Your task to perform on an android device: Open Google Chrome and open the bookmarks view Image 0: 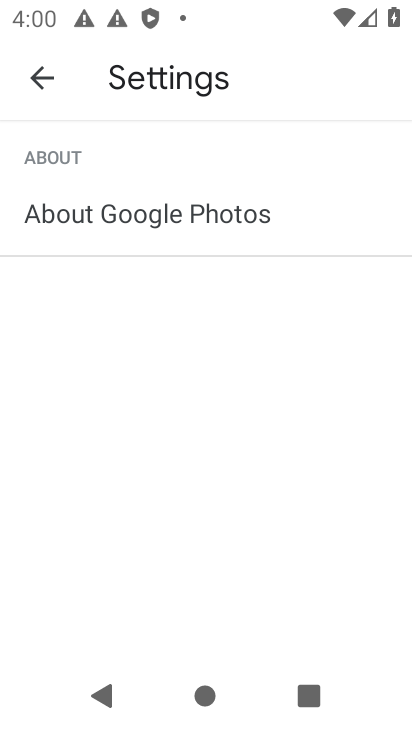
Step 0: press home button
Your task to perform on an android device: Open Google Chrome and open the bookmarks view Image 1: 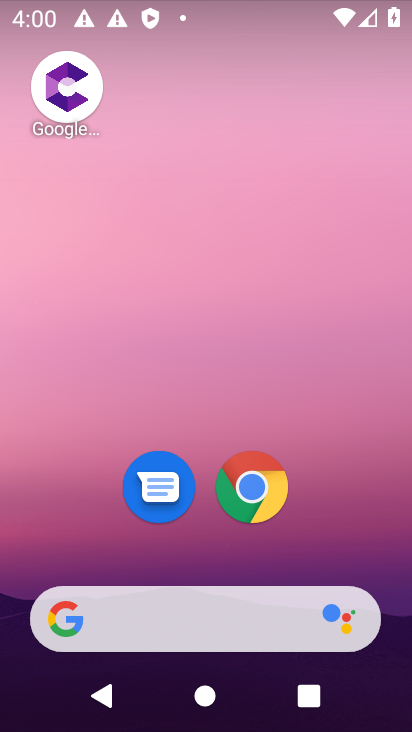
Step 1: click (263, 487)
Your task to perform on an android device: Open Google Chrome and open the bookmarks view Image 2: 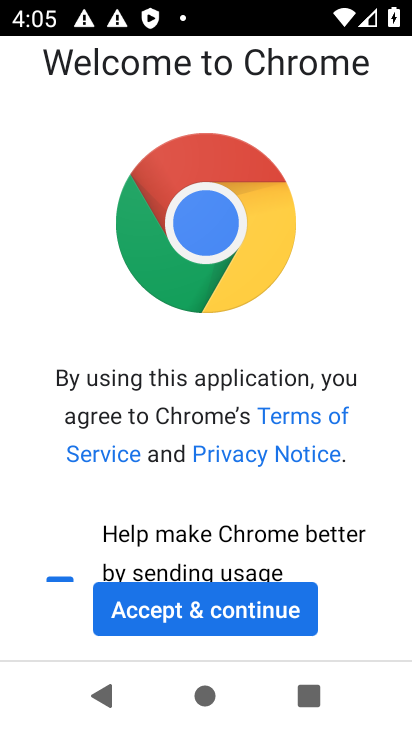
Step 2: press home button
Your task to perform on an android device: Open Google Chrome and open the bookmarks view Image 3: 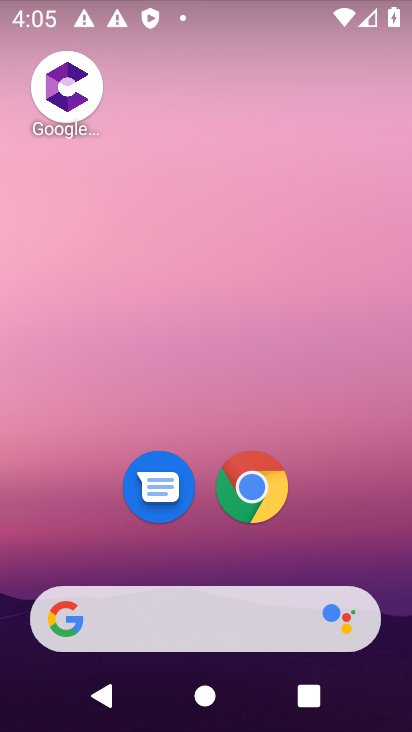
Step 3: click (269, 142)
Your task to perform on an android device: Open Google Chrome and open the bookmarks view Image 4: 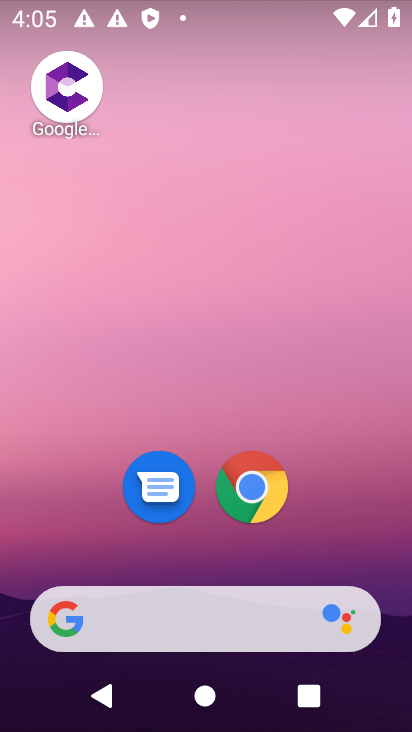
Step 4: click (275, 484)
Your task to perform on an android device: Open Google Chrome and open the bookmarks view Image 5: 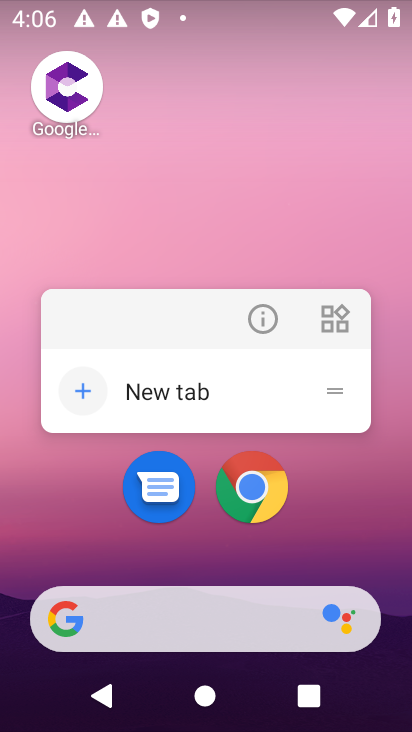
Step 5: drag from (320, 540) to (319, 156)
Your task to perform on an android device: Open Google Chrome and open the bookmarks view Image 6: 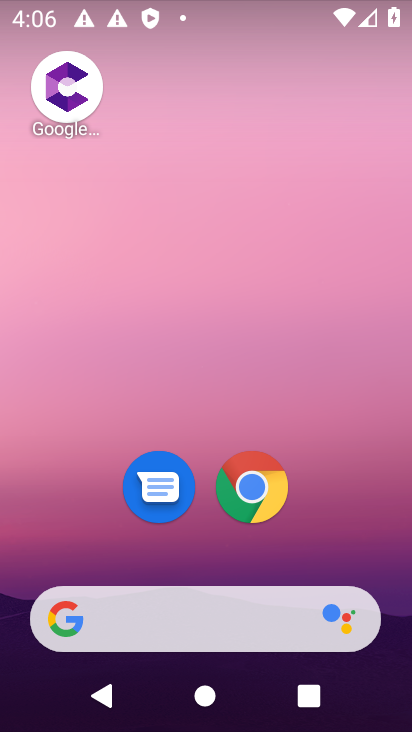
Step 6: drag from (323, 499) to (287, 97)
Your task to perform on an android device: Open Google Chrome and open the bookmarks view Image 7: 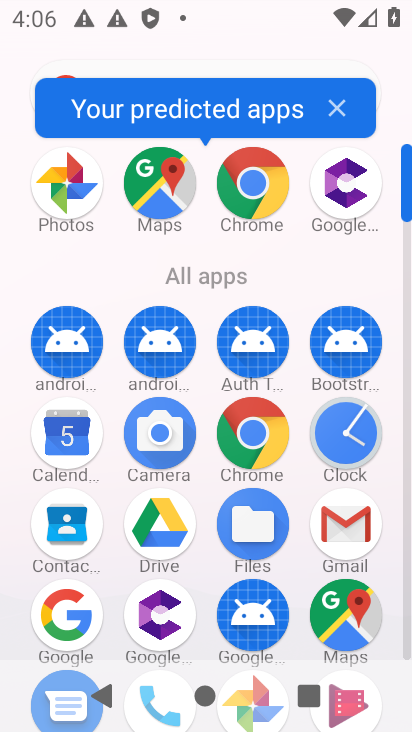
Step 7: click (237, 423)
Your task to perform on an android device: Open Google Chrome and open the bookmarks view Image 8: 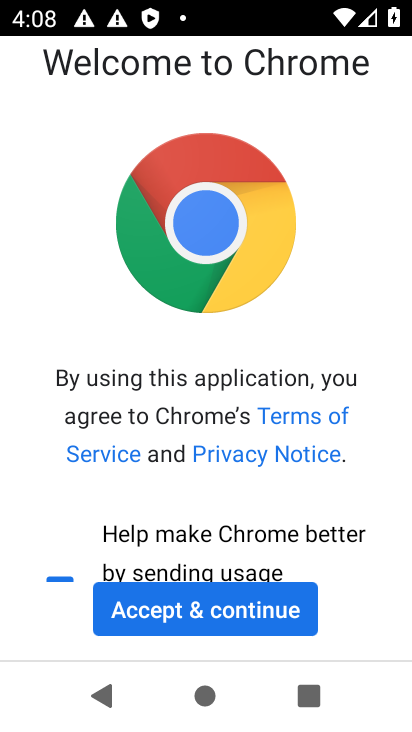
Step 8: click (223, 604)
Your task to perform on an android device: Open Google Chrome and open the bookmarks view Image 9: 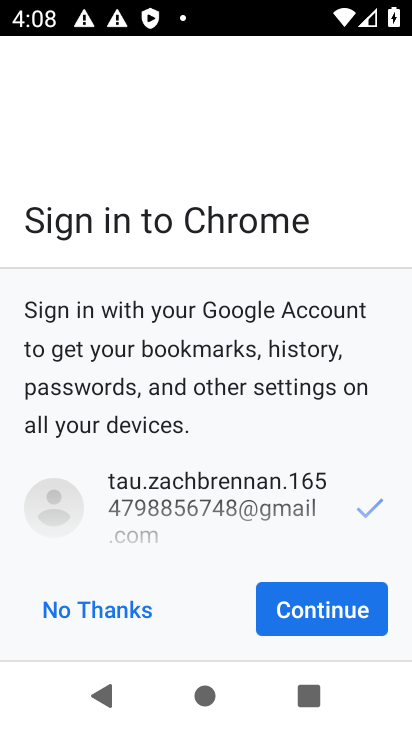
Step 9: click (81, 617)
Your task to perform on an android device: Open Google Chrome and open the bookmarks view Image 10: 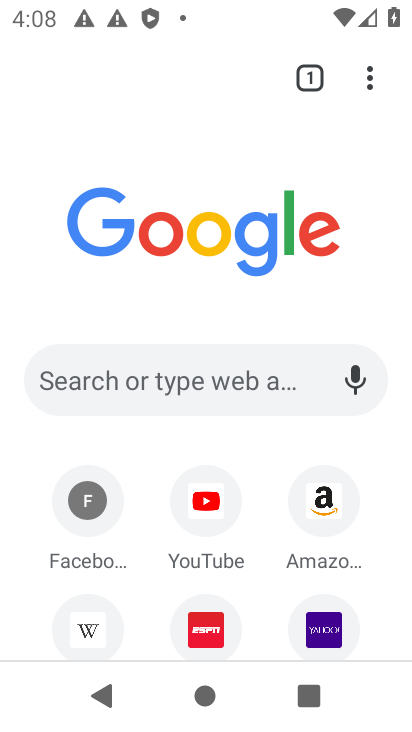
Step 10: task complete